Your task to perform on an android device: visit the assistant section in the google photos Image 0: 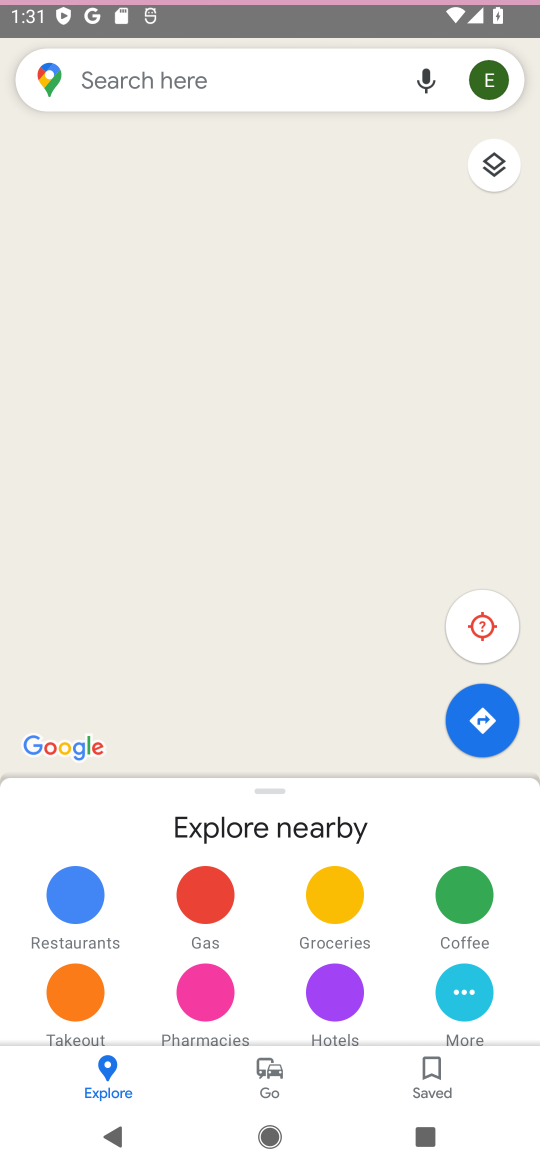
Step 0: press home button
Your task to perform on an android device: visit the assistant section in the google photos Image 1: 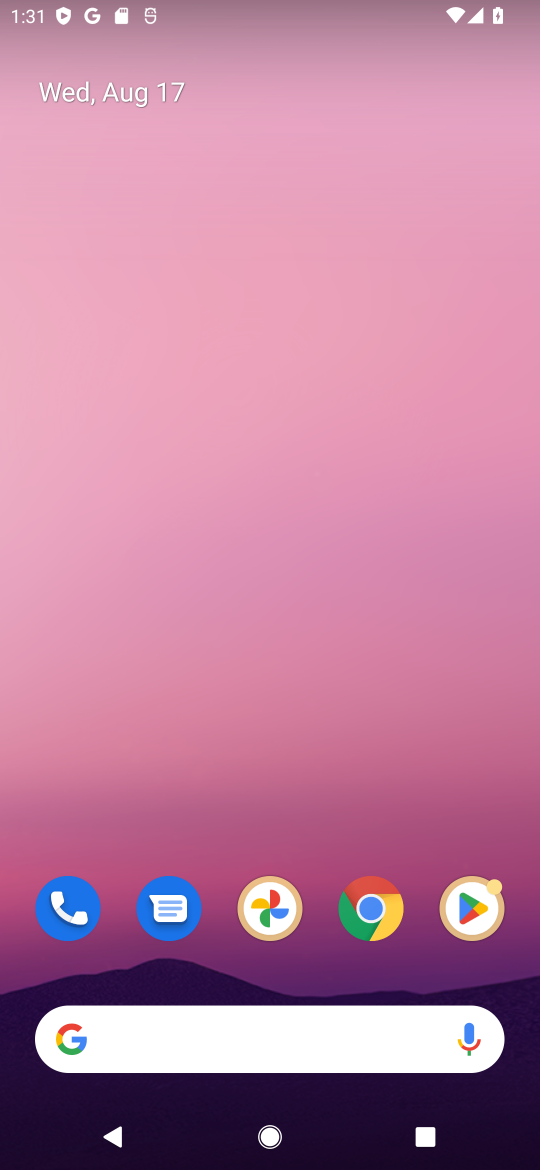
Step 1: click (263, 903)
Your task to perform on an android device: visit the assistant section in the google photos Image 2: 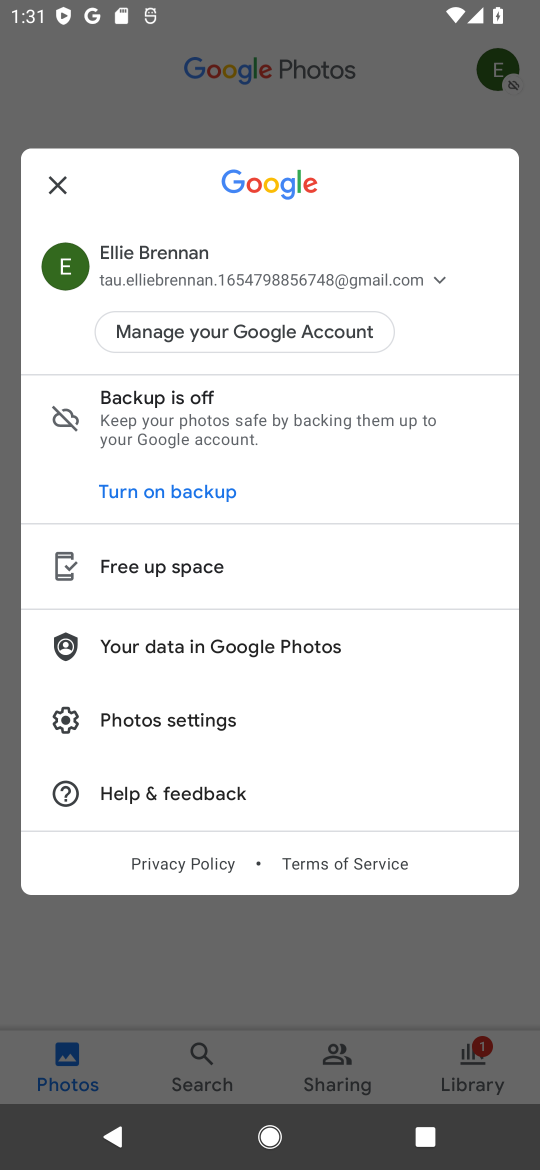
Step 2: press back button
Your task to perform on an android device: visit the assistant section in the google photos Image 3: 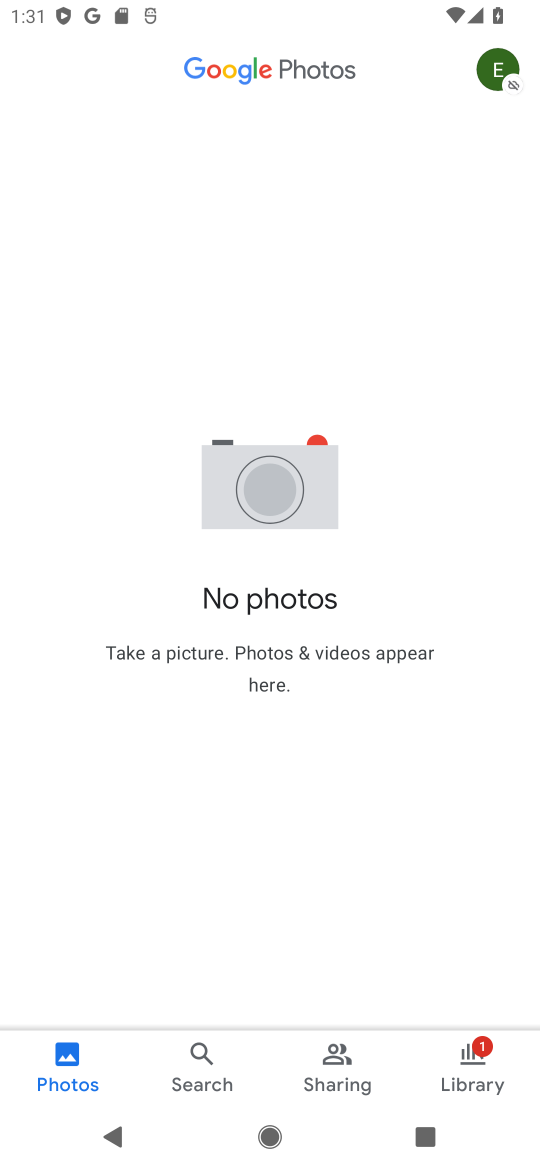
Step 3: click (473, 1071)
Your task to perform on an android device: visit the assistant section in the google photos Image 4: 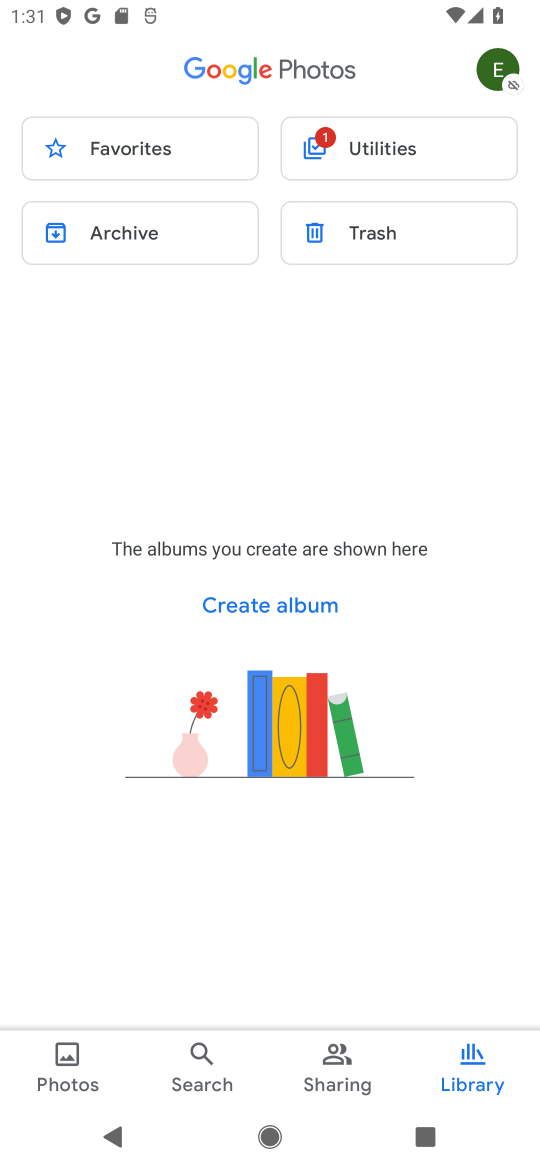
Step 4: task complete